Your task to perform on an android device: Open privacy settings Image 0: 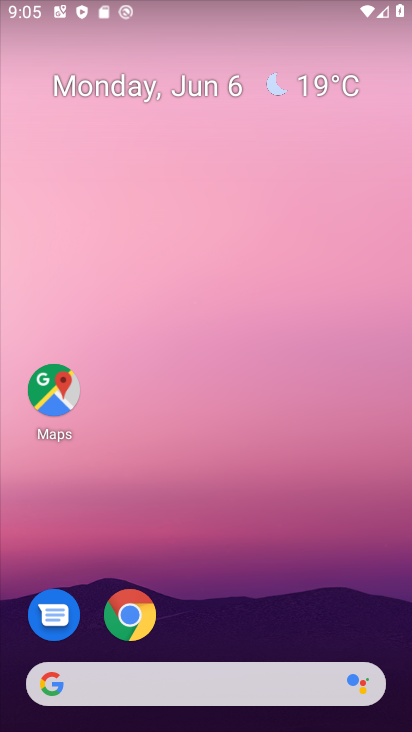
Step 0: drag from (196, 662) to (167, 40)
Your task to perform on an android device: Open privacy settings Image 1: 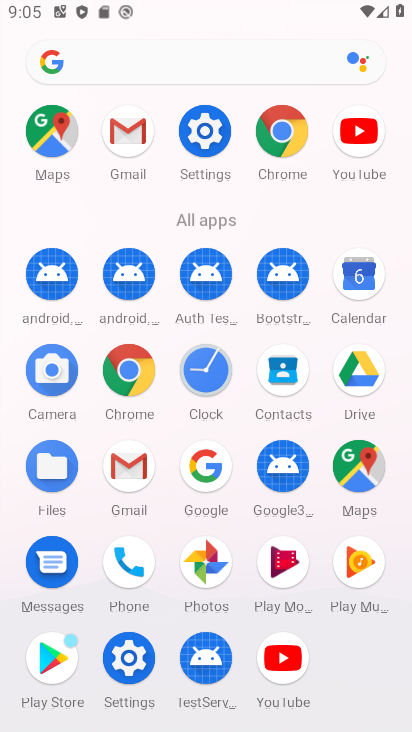
Step 1: click (200, 118)
Your task to perform on an android device: Open privacy settings Image 2: 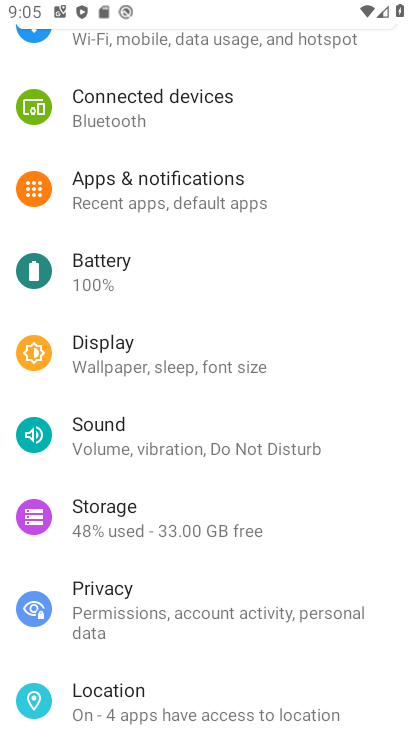
Step 2: click (107, 603)
Your task to perform on an android device: Open privacy settings Image 3: 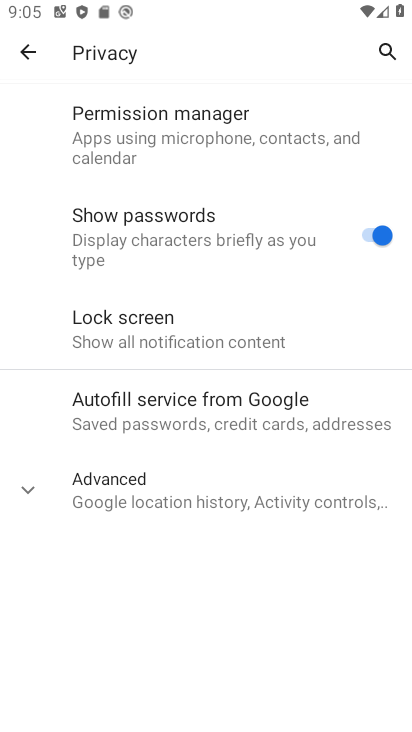
Step 3: task complete